Your task to perform on an android device: toggle wifi Image 0: 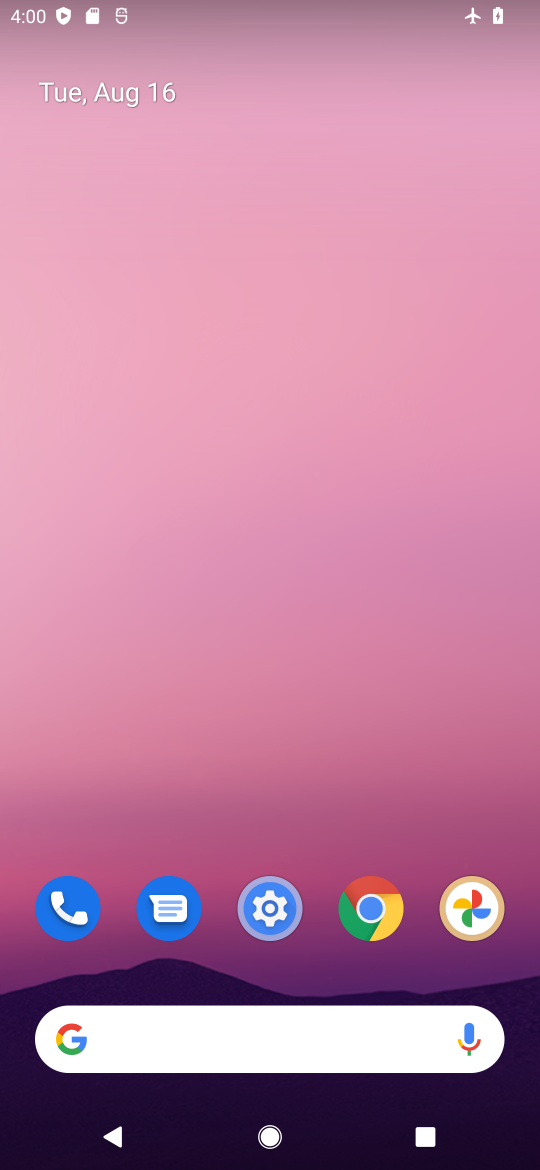
Step 0: press home button
Your task to perform on an android device: toggle wifi Image 1: 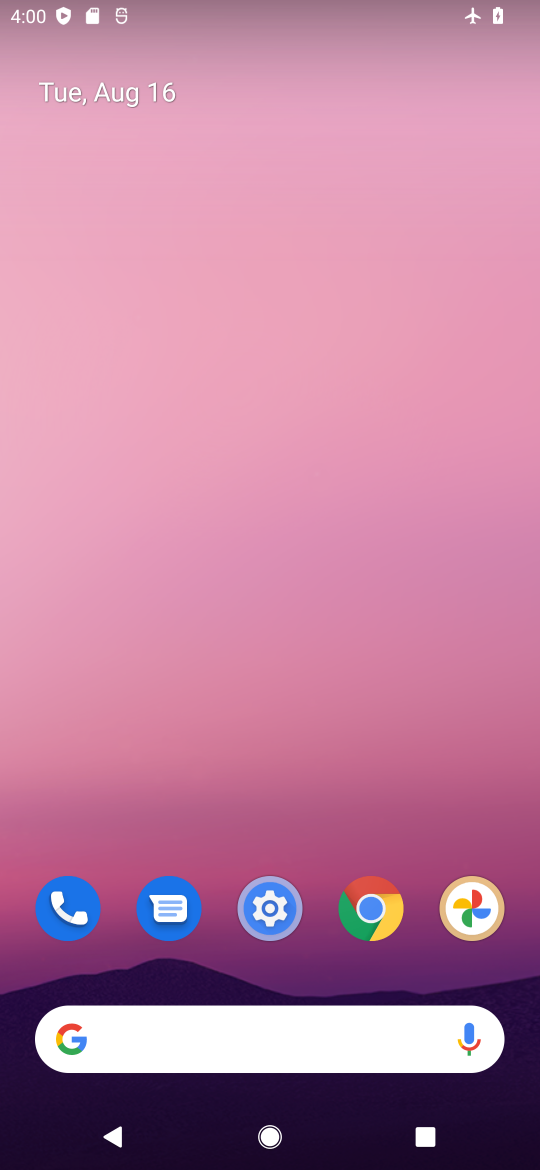
Step 1: drag from (319, 871) to (0, 384)
Your task to perform on an android device: toggle wifi Image 2: 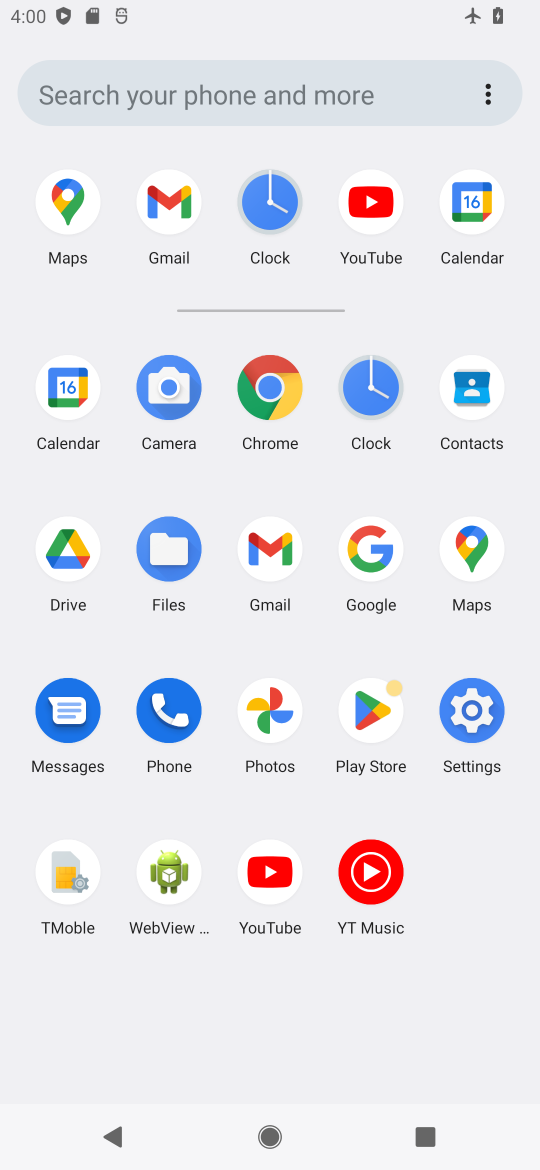
Step 2: click (467, 703)
Your task to perform on an android device: toggle wifi Image 3: 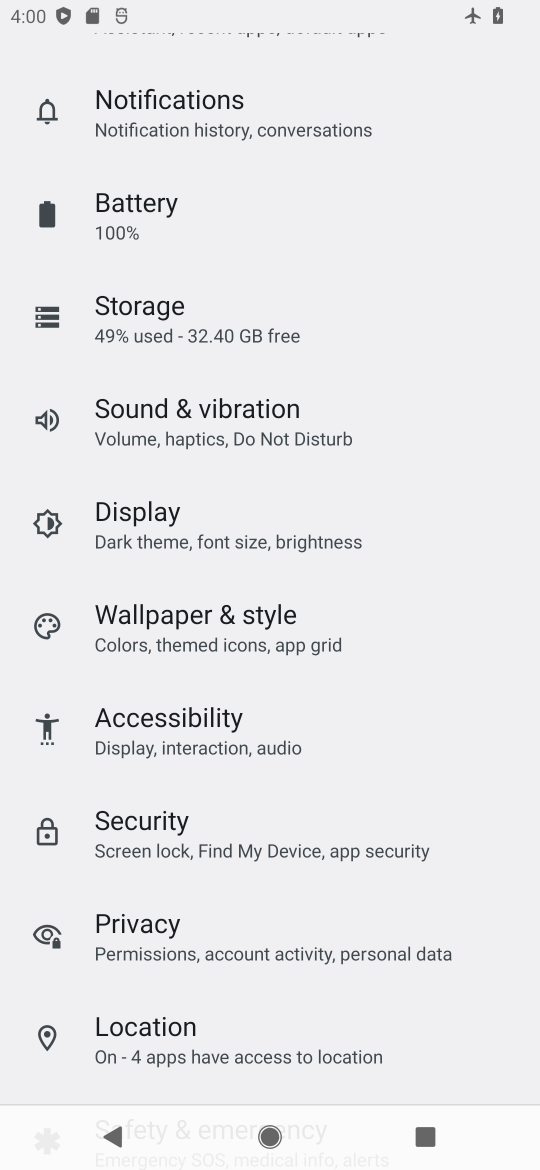
Step 3: drag from (215, 150) to (377, 1165)
Your task to perform on an android device: toggle wifi Image 4: 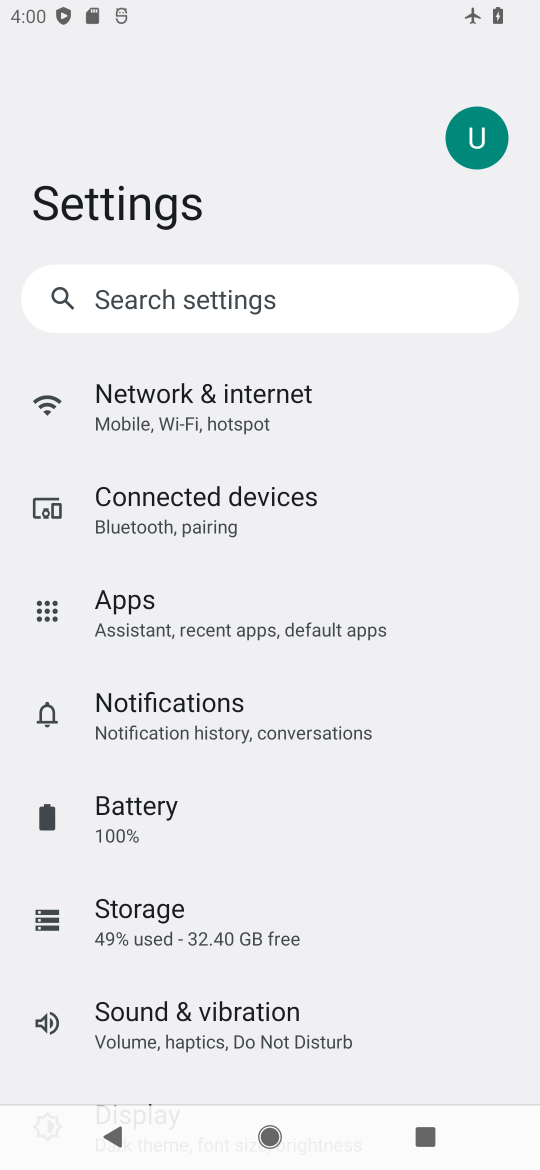
Step 4: click (284, 408)
Your task to perform on an android device: toggle wifi Image 5: 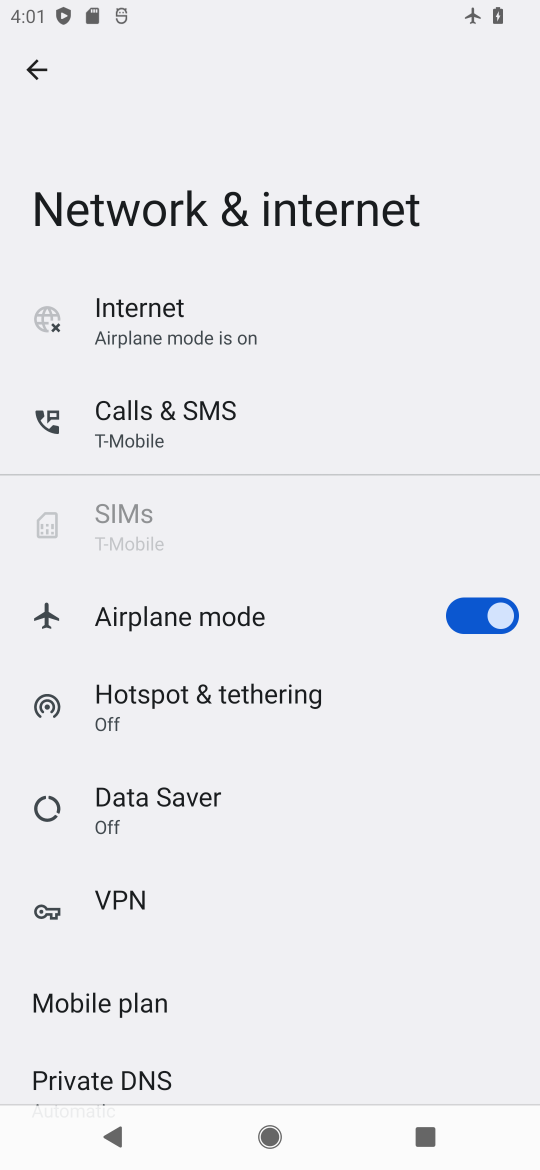
Step 5: click (224, 320)
Your task to perform on an android device: toggle wifi Image 6: 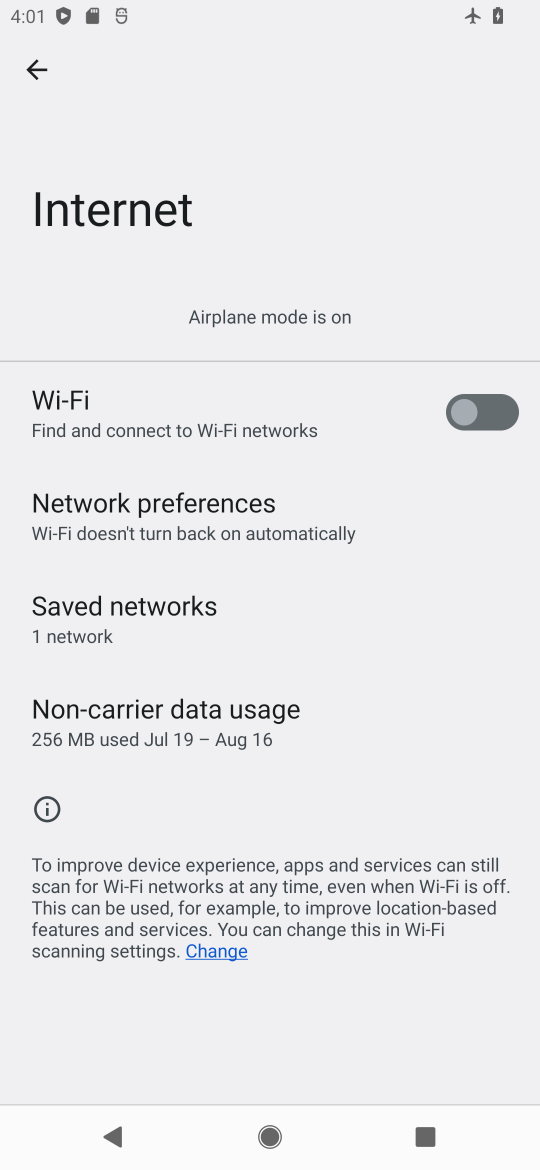
Step 6: click (468, 409)
Your task to perform on an android device: toggle wifi Image 7: 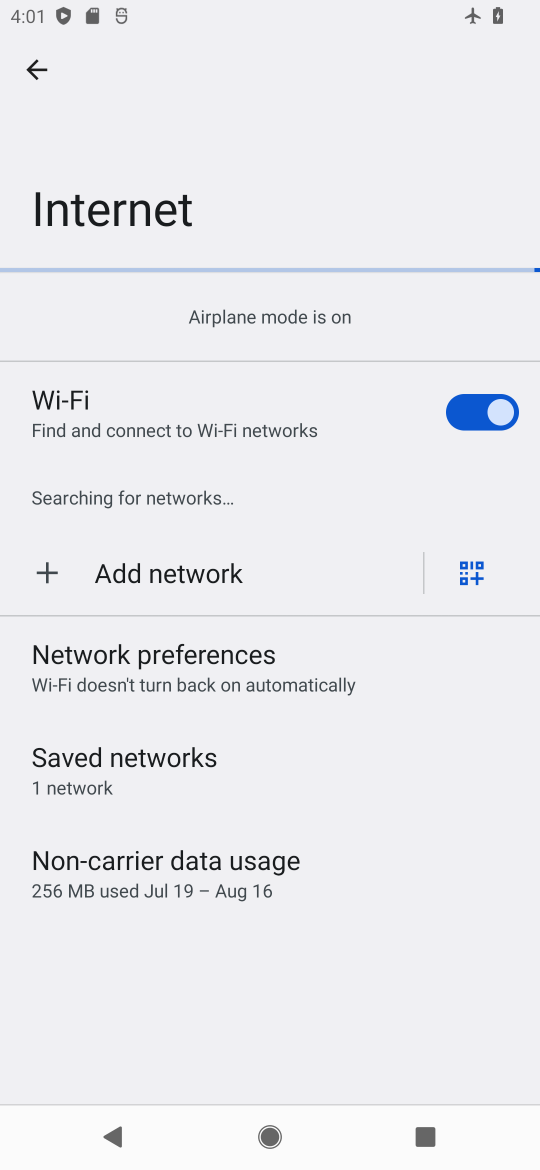
Step 7: task complete